Your task to perform on an android device: empty trash in the gmail app Image 0: 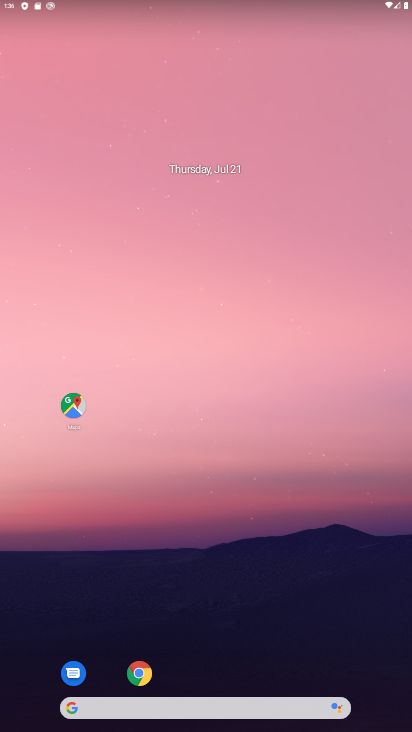
Step 0: click (183, 683)
Your task to perform on an android device: empty trash in the gmail app Image 1: 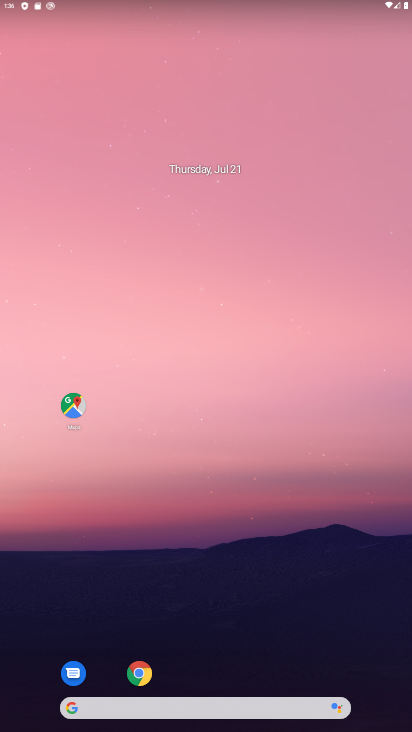
Step 1: drag from (183, 568) to (247, 173)
Your task to perform on an android device: empty trash in the gmail app Image 2: 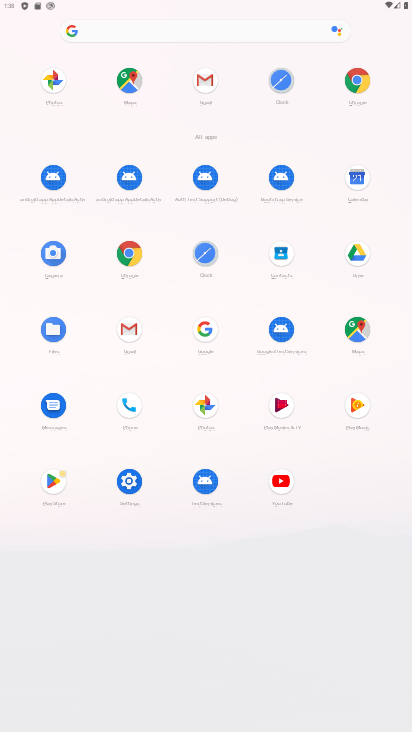
Step 2: click (201, 89)
Your task to perform on an android device: empty trash in the gmail app Image 3: 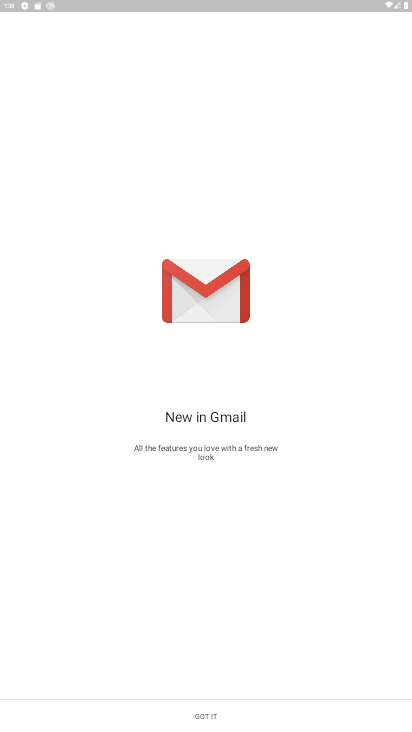
Step 3: click (205, 717)
Your task to perform on an android device: empty trash in the gmail app Image 4: 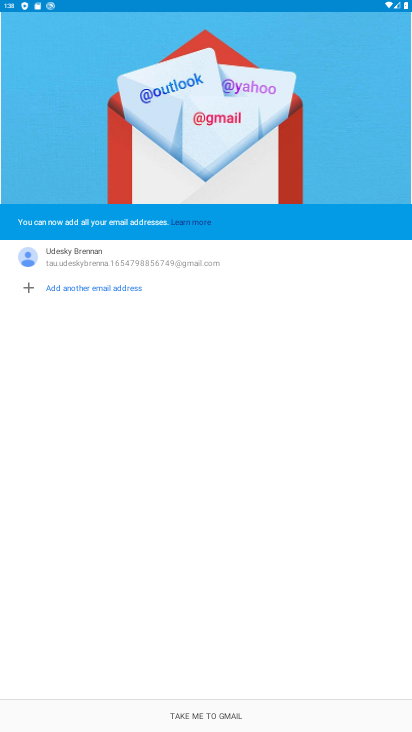
Step 4: click (205, 717)
Your task to perform on an android device: empty trash in the gmail app Image 5: 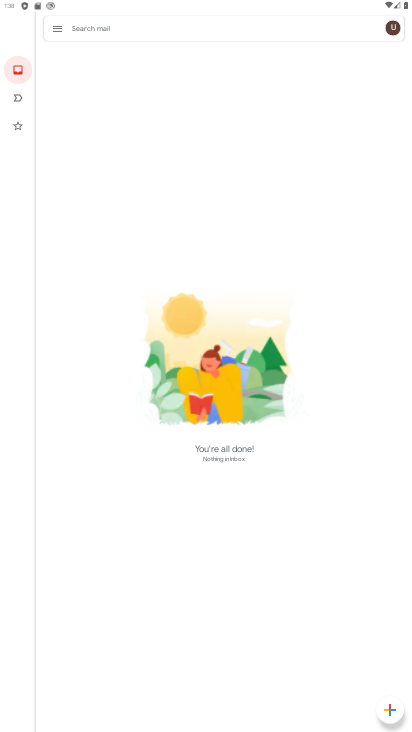
Step 5: click (60, 21)
Your task to perform on an android device: empty trash in the gmail app Image 6: 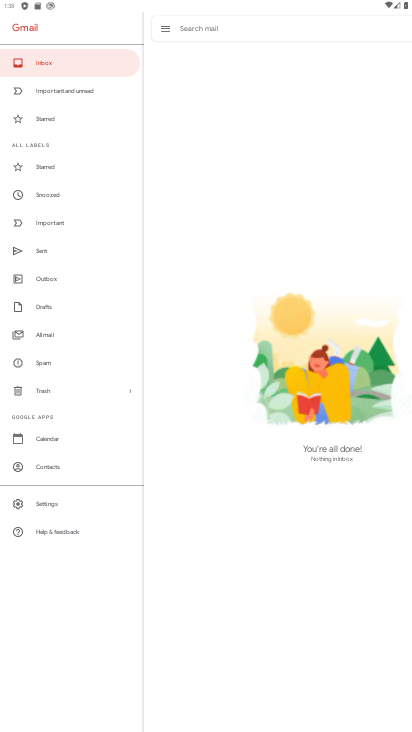
Step 6: click (39, 388)
Your task to perform on an android device: empty trash in the gmail app Image 7: 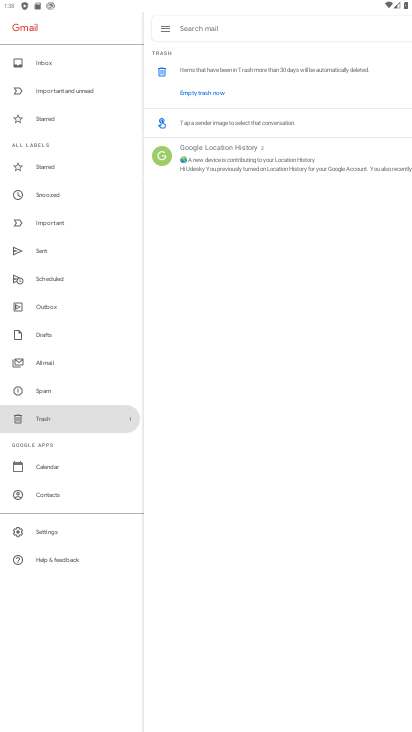
Step 7: click (201, 90)
Your task to perform on an android device: empty trash in the gmail app Image 8: 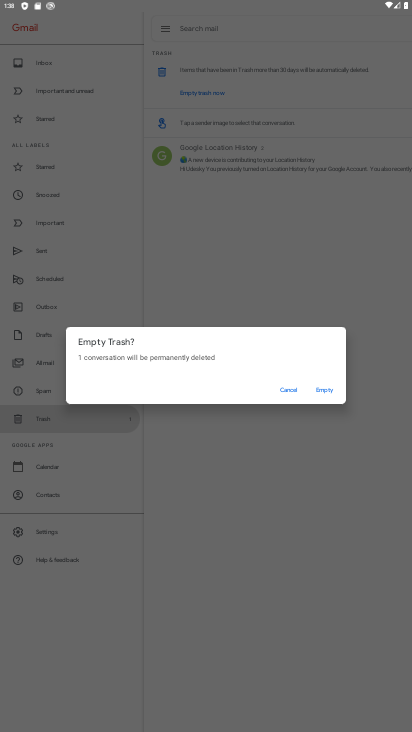
Step 8: click (326, 394)
Your task to perform on an android device: empty trash in the gmail app Image 9: 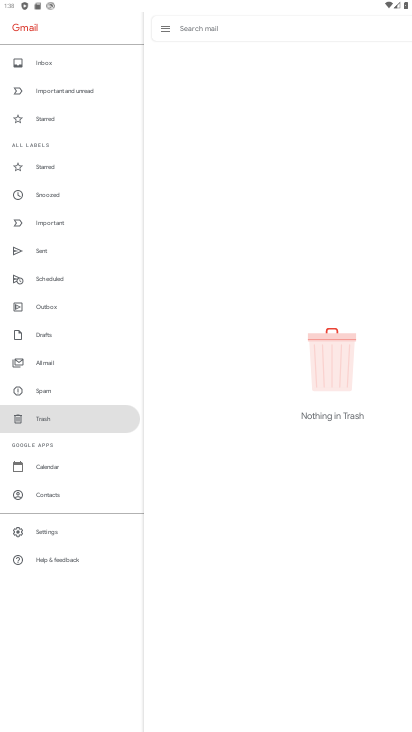
Step 9: task complete